Your task to perform on an android device: Open ESPN.com Image 0: 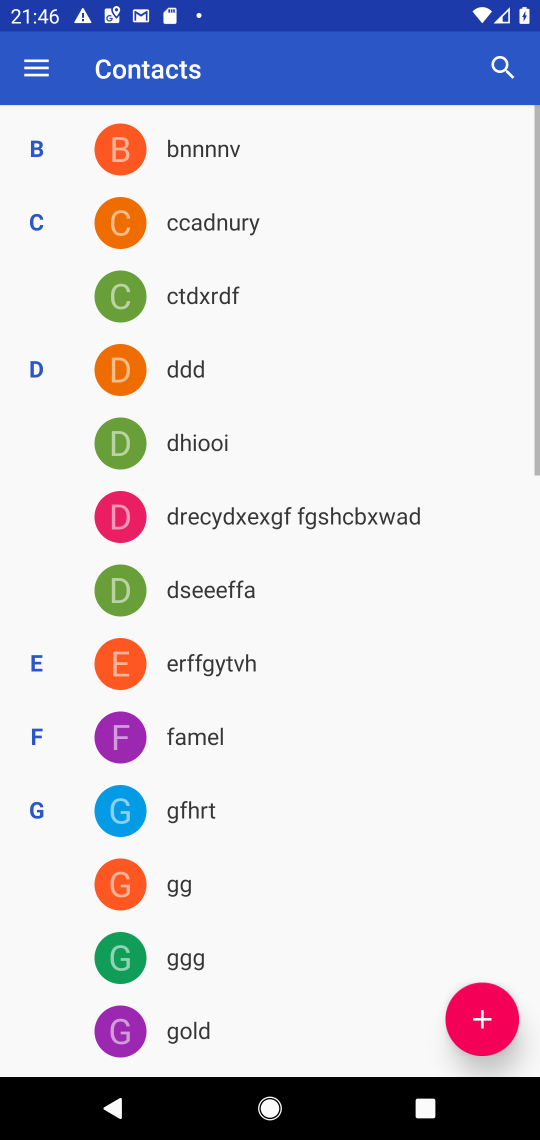
Step 0: press home button
Your task to perform on an android device: Open ESPN.com Image 1: 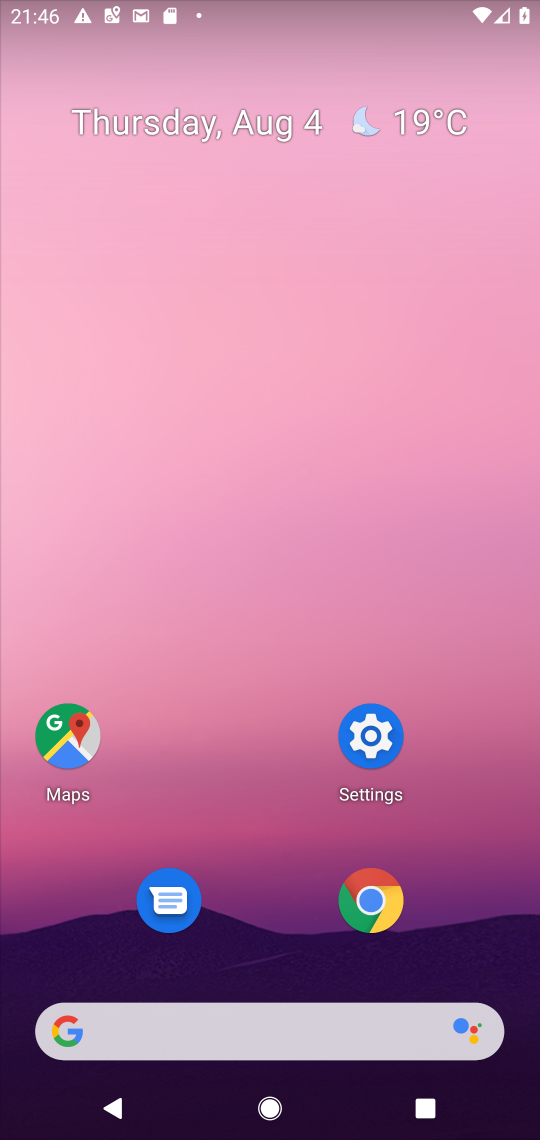
Step 1: click (369, 898)
Your task to perform on an android device: Open ESPN.com Image 2: 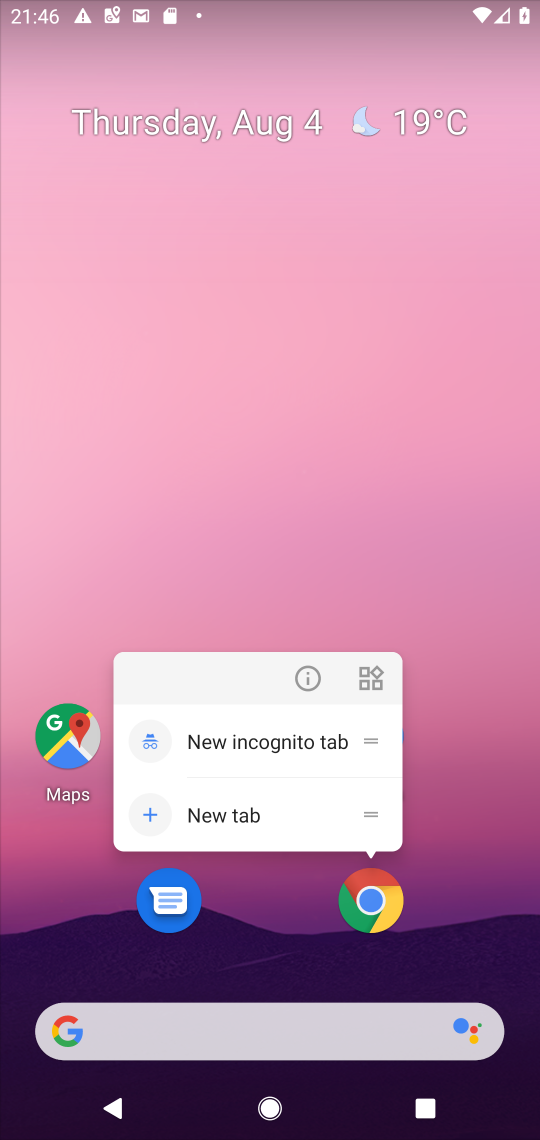
Step 2: click (369, 901)
Your task to perform on an android device: Open ESPN.com Image 3: 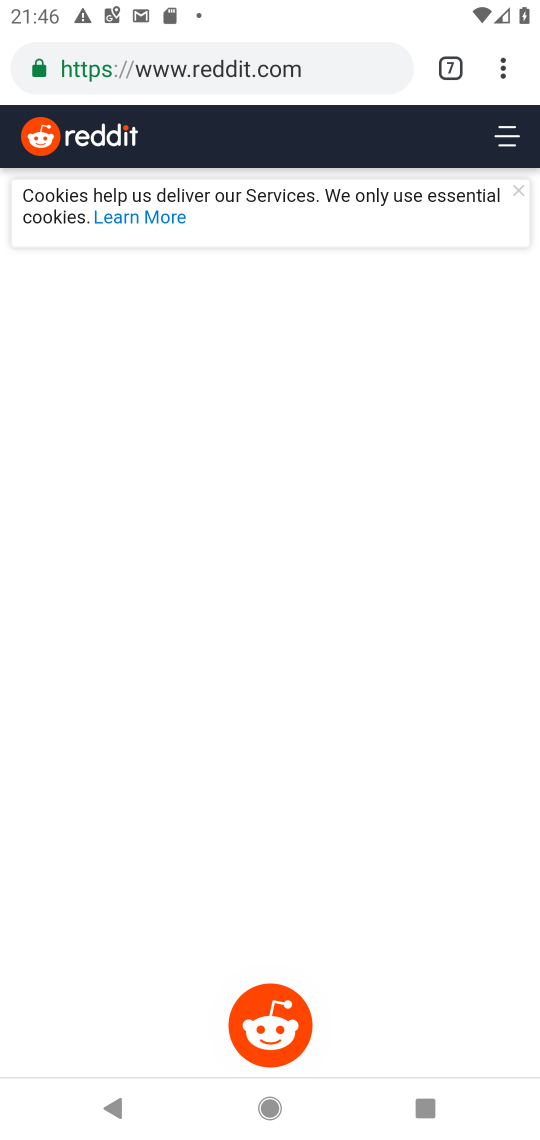
Step 3: drag from (498, 63) to (314, 230)
Your task to perform on an android device: Open ESPN.com Image 4: 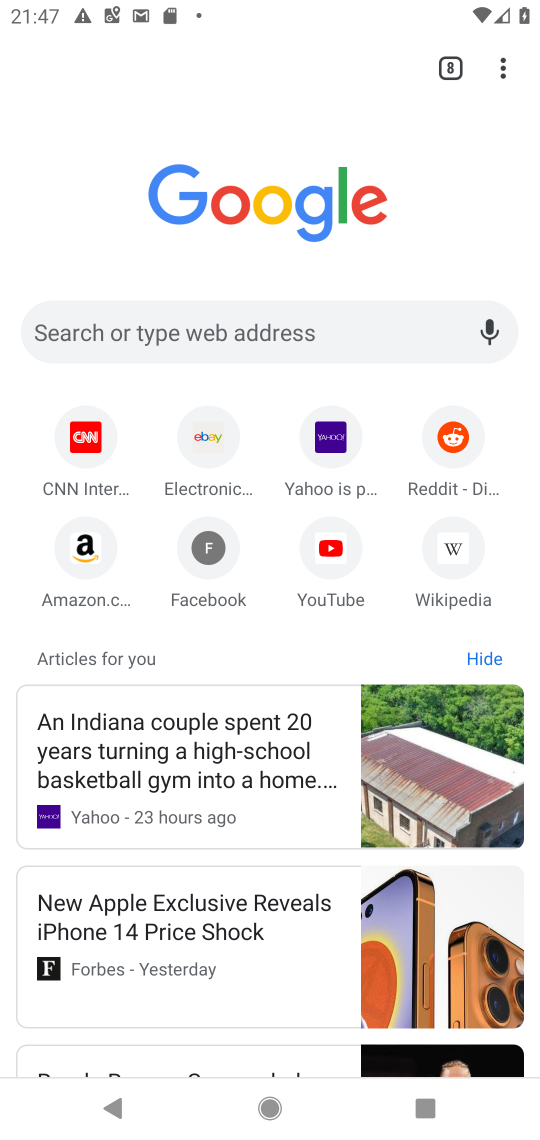
Step 4: click (233, 326)
Your task to perform on an android device: Open ESPN.com Image 5: 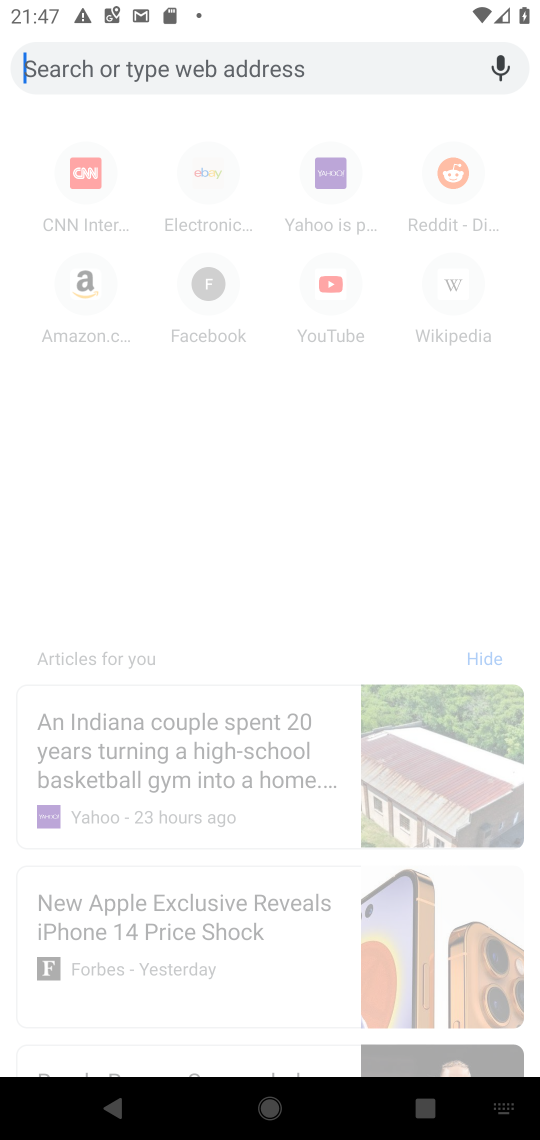
Step 5: type "ESPN.com"
Your task to perform on an android device: Open ESPN.com Image 6: 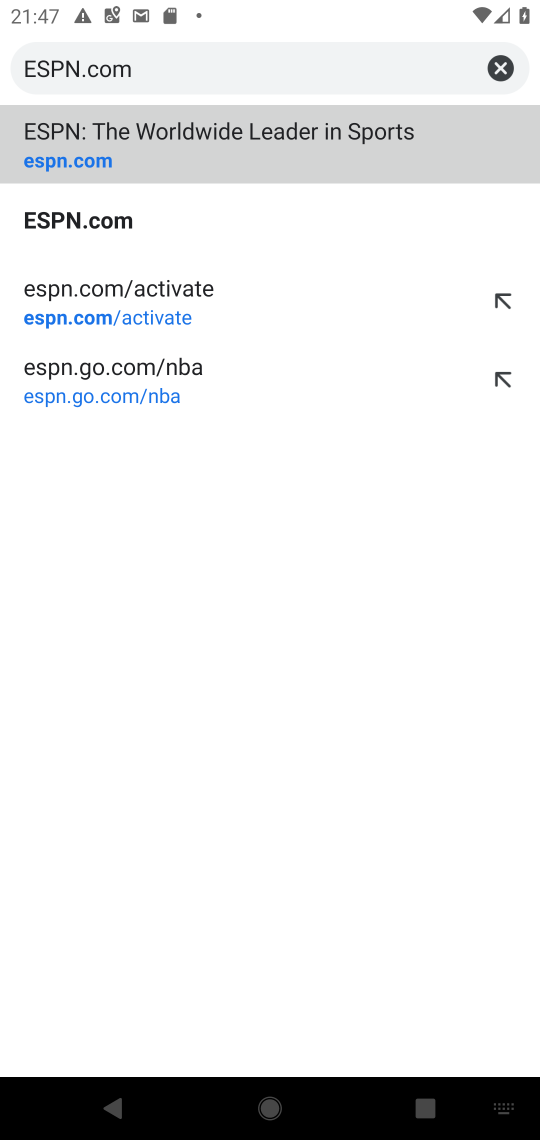
Step 6: click (203, 145)
Your task to perform on an android device: Open ESPN.com Image 7: 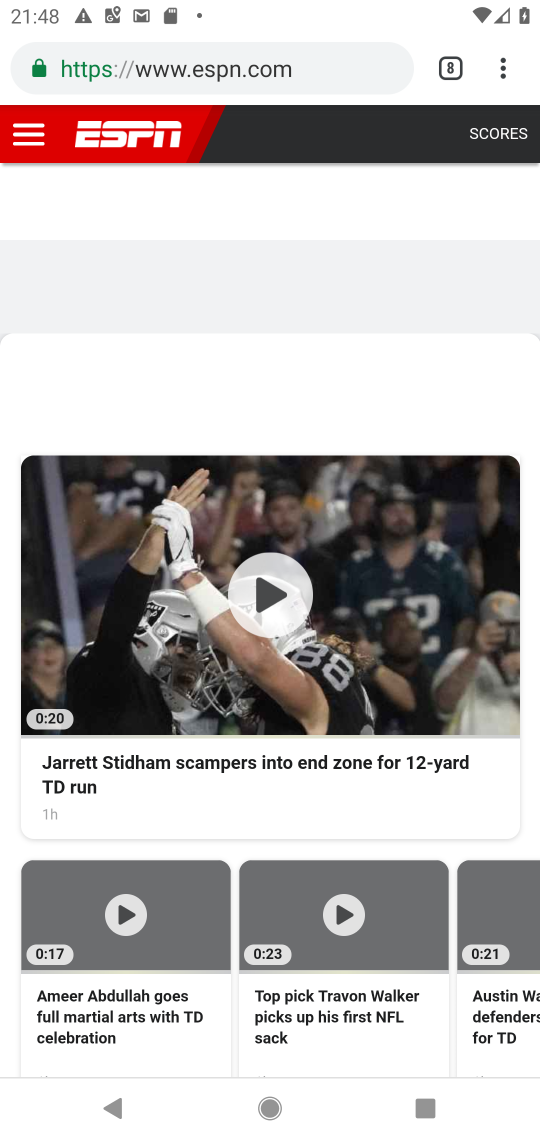
Step 7: task complete